Your task to perform on an android device: turn notification dots on Image 0: 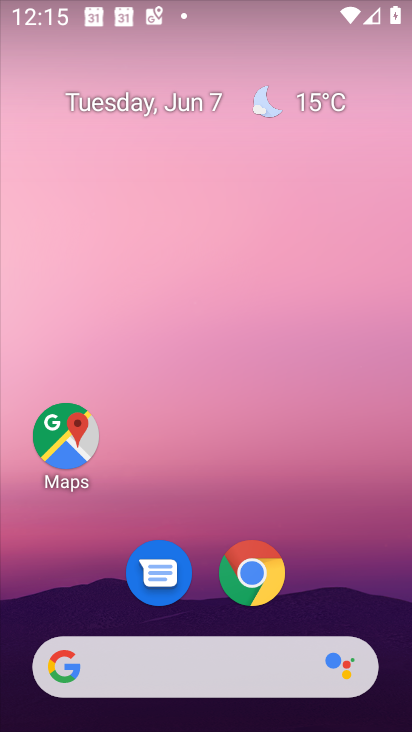
Step 0: drag from (316, 516) to (251, 29)
Your task to perform on an android device: turn notification dots on Image 1: 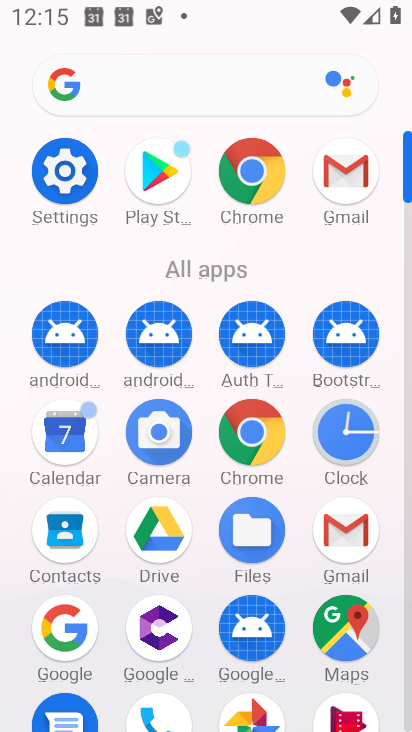
Step 1: click (76, 184)
Your task to perform on an android device: turn notification dots on Image 2: 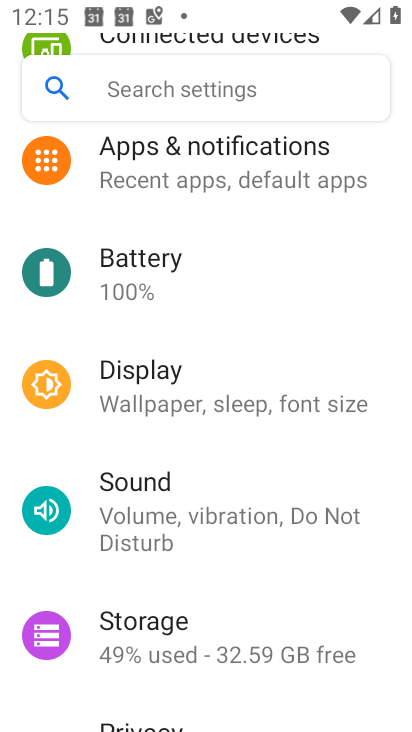
Step 2: click (206, 141)
Your task to perform on an android device: turn notification dots on Image 3: 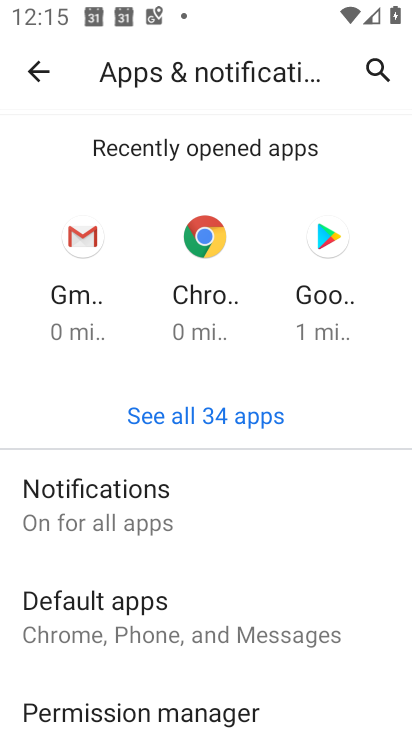
Step 3: drag from (274, 656) to (257, 186)
Your task to perform on an android device: turn notification dots on Image 4: 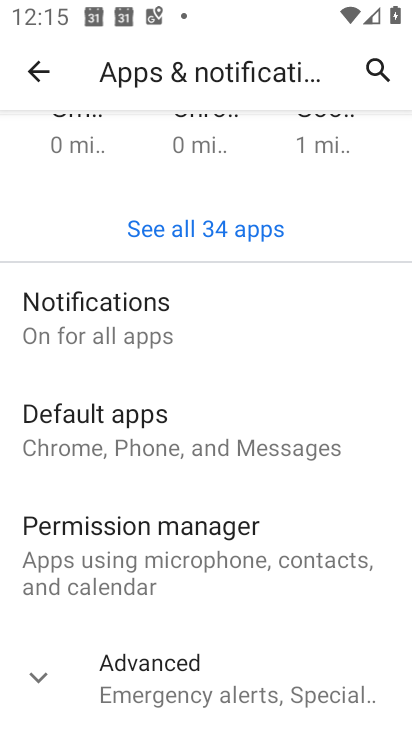
Step 4: click (39, 677)
Your task to perform on an android device: turn notification dots on Image 5: 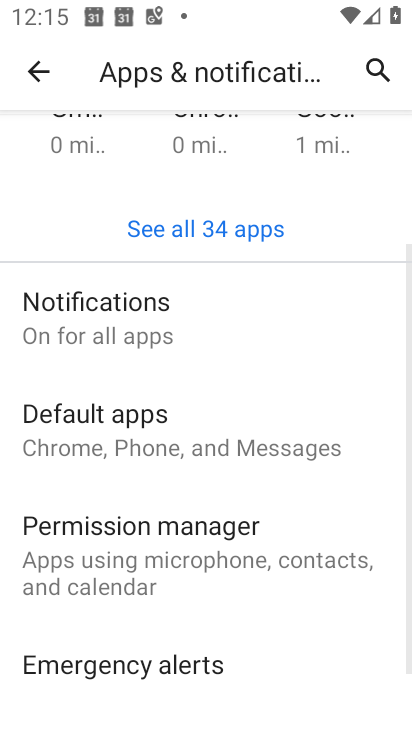
Step 5: drag from (294, 667) to (317, 171)
Your task to perform on an android device: turn notification dots on Image 6: 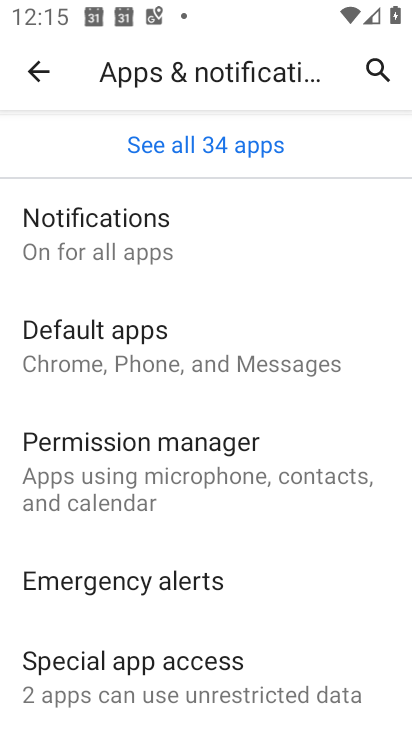
Step 6: drag from (285, 585) to (254, 251)
Your task to perform on an android device: turn notification dots on Image 7: 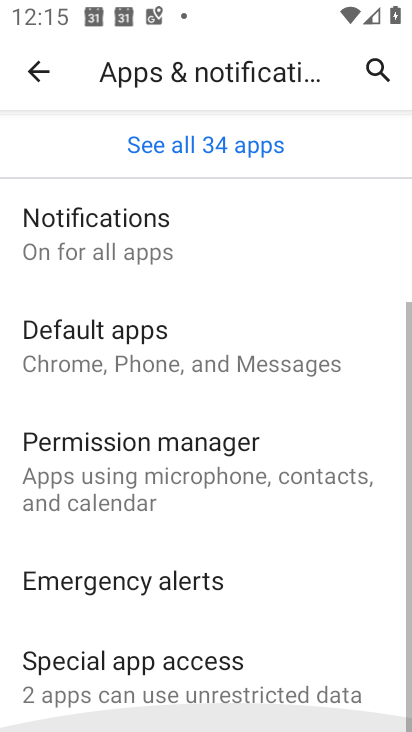
Step 7: click (226, 224)
Your task to perform on an android device: turn notification dots on Image 8: 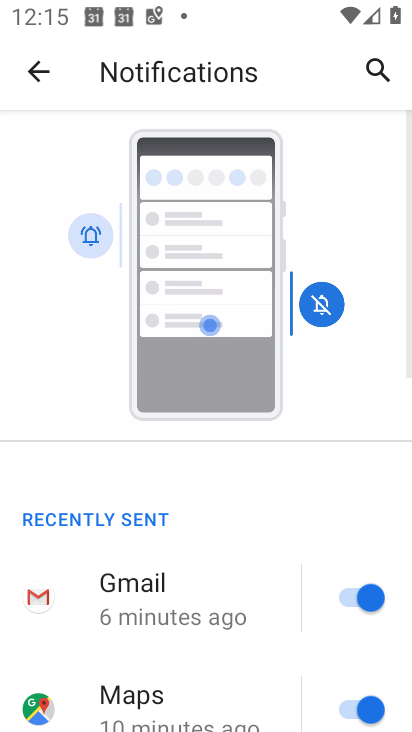
Step 8: drag from (245, 682) to (273, 51)
Your task to perform on an android device: turn notification dots on Image 9: 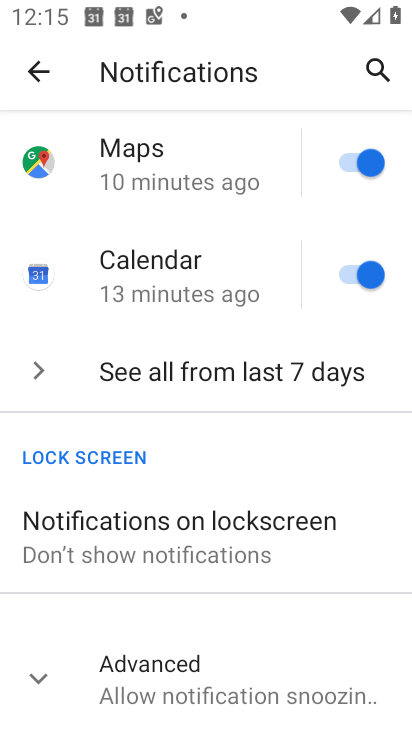
Step 9: click (40, 672)
Your task to perform on an android device: turn notification dots on Image 10: 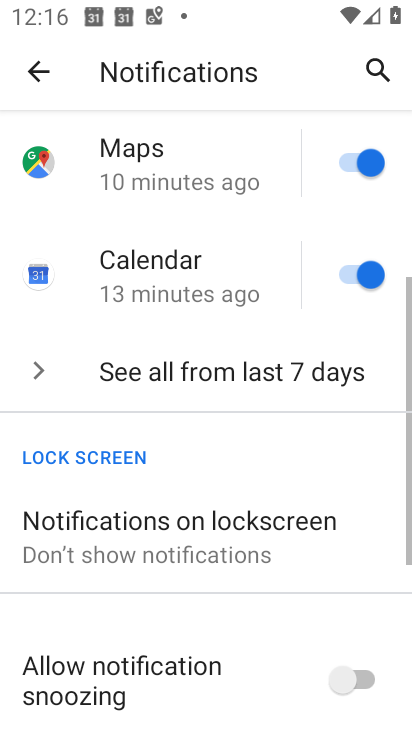
Step 10: task complete